Your task to perform on an android device: Open the calendar and show me this week's events? Image 0: 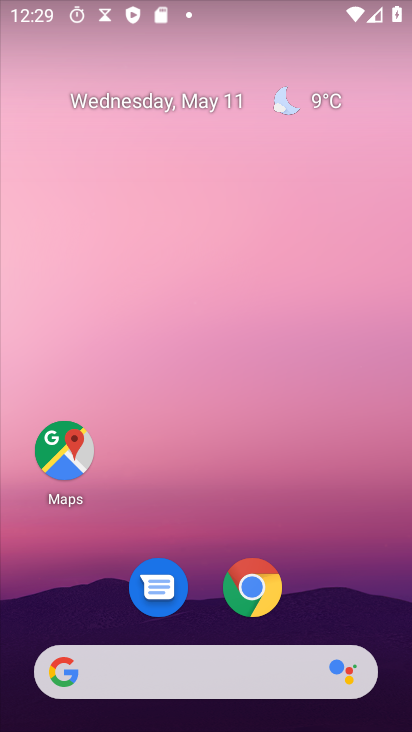
Step 0: drag from (219, 391) to (150, 153)
Your task to perform on an android device: Open the calendar and show me this week's events? Image 1: 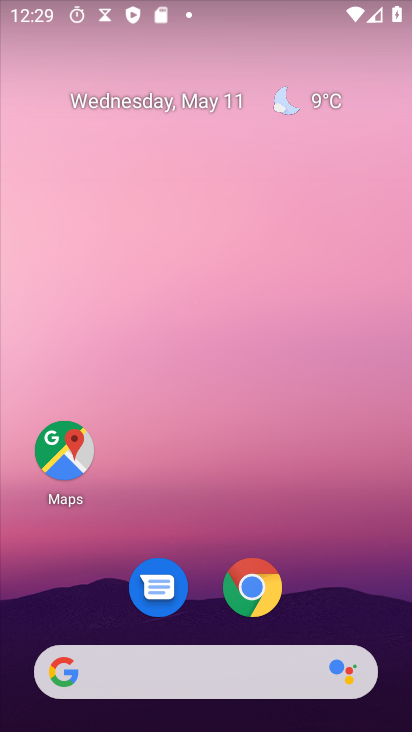
Step 1: drag from (326, 618) to (141, 333)
Your task to perform on an android device: Open the calendar and show me this week's events? Image 2: 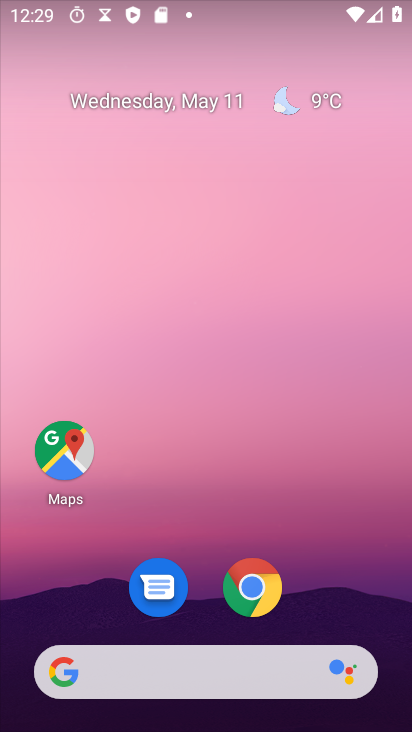
Step 2: drag from (340, 558) to (109, 3)
Your task to perform on an android device: Open the calendar and show me this week's events? Image 3: 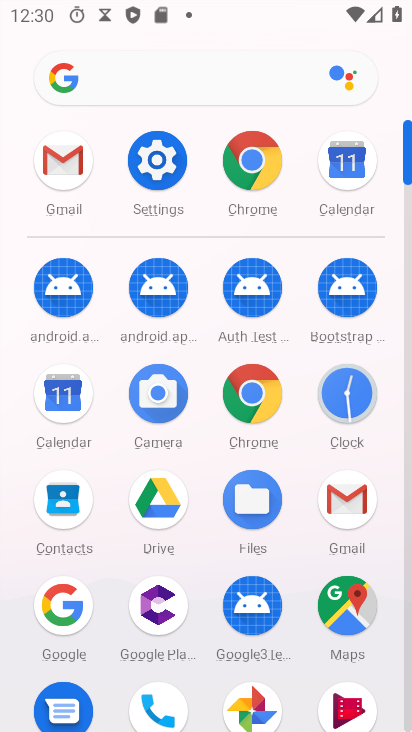
Step 3: click (64, 398)
Your task to perform on an android device: Open the calendar and show me this week's events? Image 4: 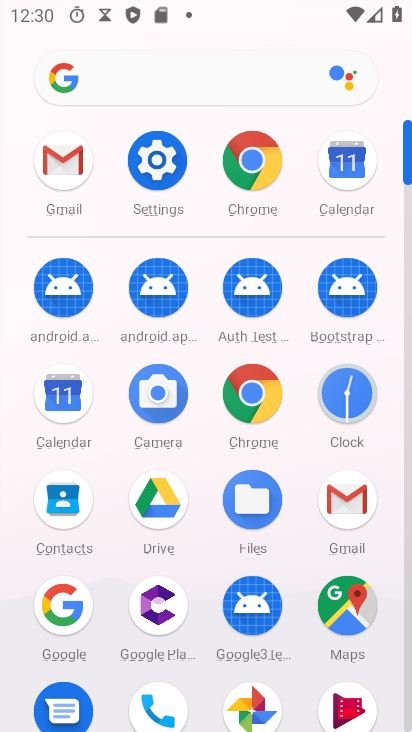
Step 4: click (66, 396)
Your task to perform on an android device: Open the calendar and show me this week's events? Image 5: 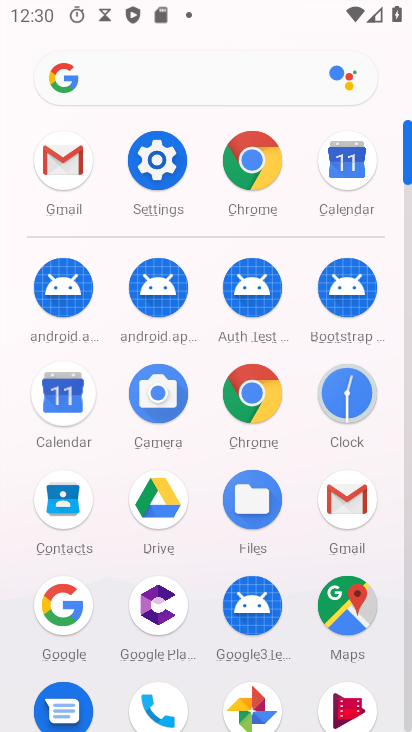
Step 5: click (65, 395)
Your task to perform on an android device: Open the calendar and show me this week's events? Image 6: 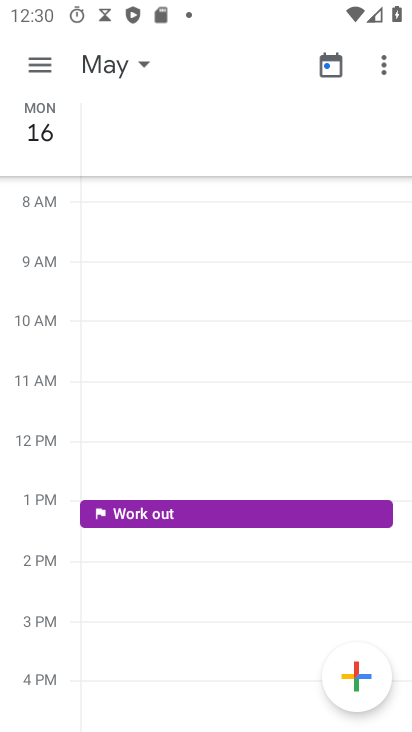
Step 6: click (62, 394)
Your task to perform on an android device: Open the calendar and show me this week's events? Image 7: 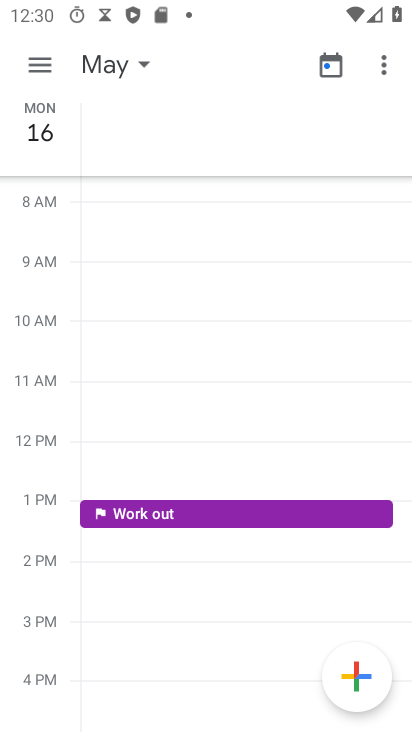
Step 7: click (143, 65)
Your task to perform on an android device: Open the calendar and show me this week's events? Image 8: 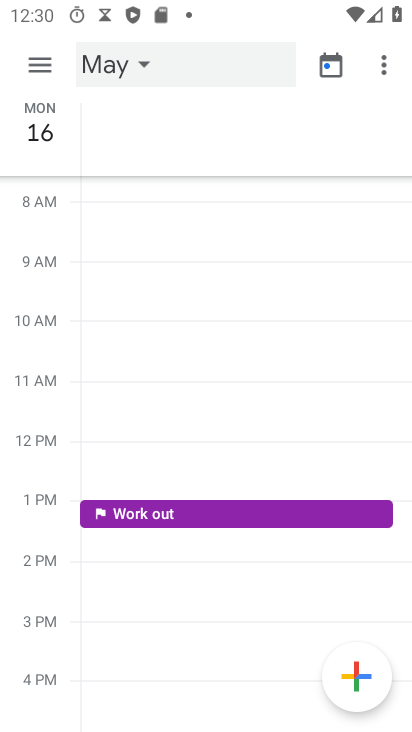
Step 8: click (139, 64)
Your task to perform on an android device: Open the calendar and show me this week's events? Image 9: 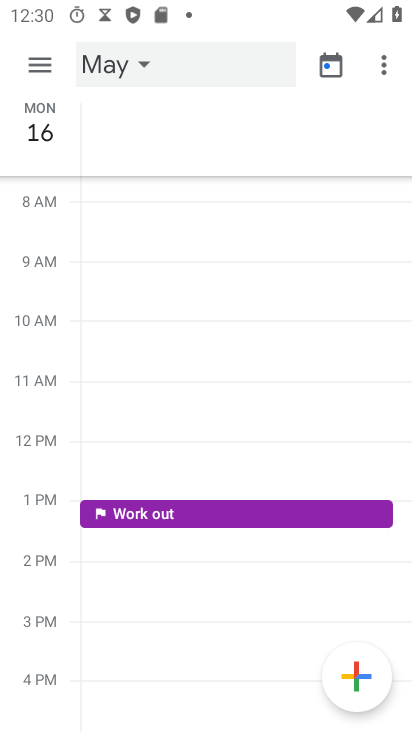
Step 9: click (139, 63)
Your task to perform on an android device: Open the calendar and show me this week's events? Image 10: 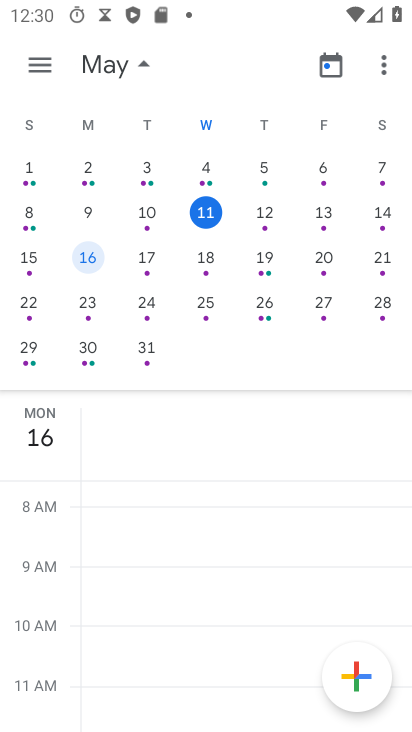
Step 10: click (327, 215)
Your task to perform on an android device: Open the calendar and show me this week's events? Image 11: 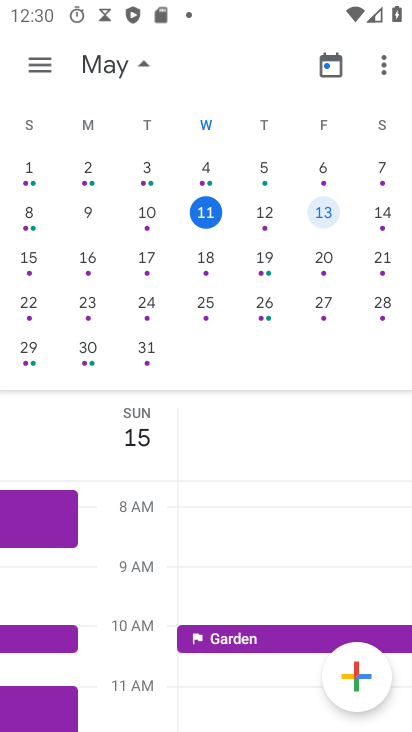
Step 11: click (327, 215)
Your task to perform on an android device: Open the calendar and show me this week's events? Image 12: 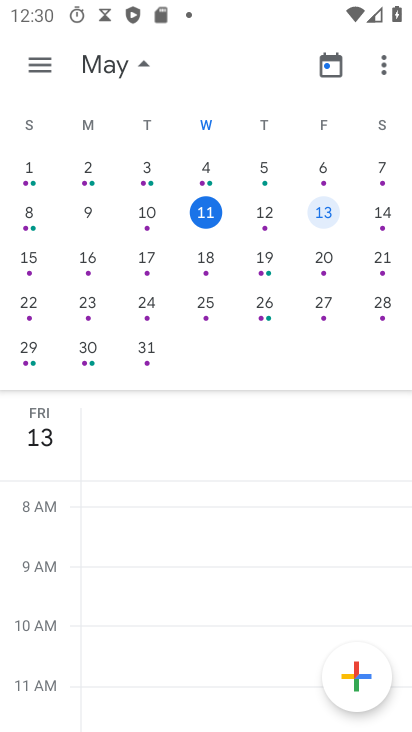
Step 12: click (325, 215)
Your task to perform on an android device: Open the calendar and show me this week's events? Image 13: 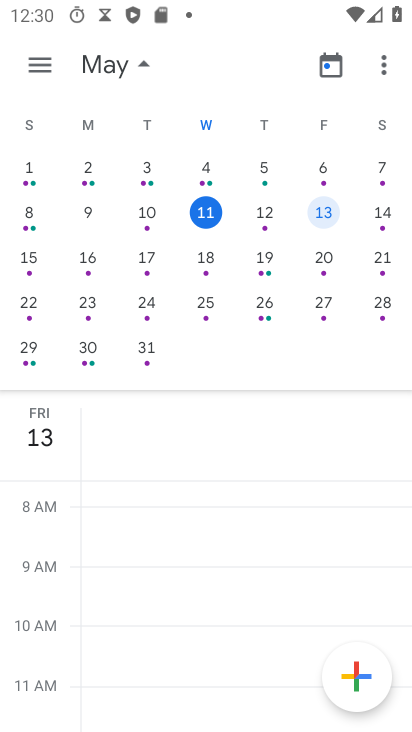
Step 13: click (325, 215)
Your task to perform on an android device: Open the calendar and show me this week's events? Image 14: 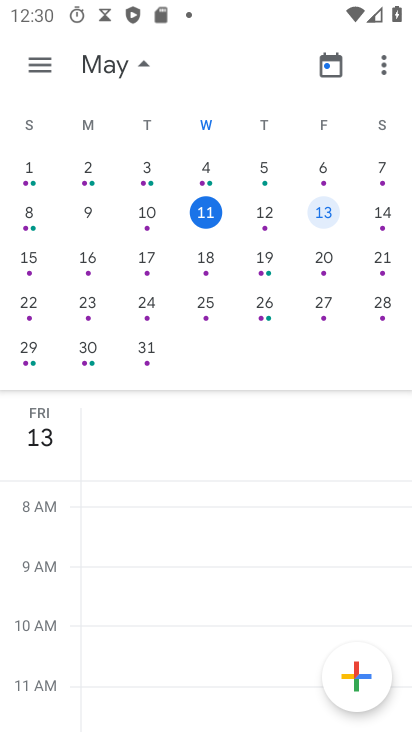
Step 14: click (322, 215)
Your task to perform on an android device: Open the calendar and show me this week's events? Image 15: 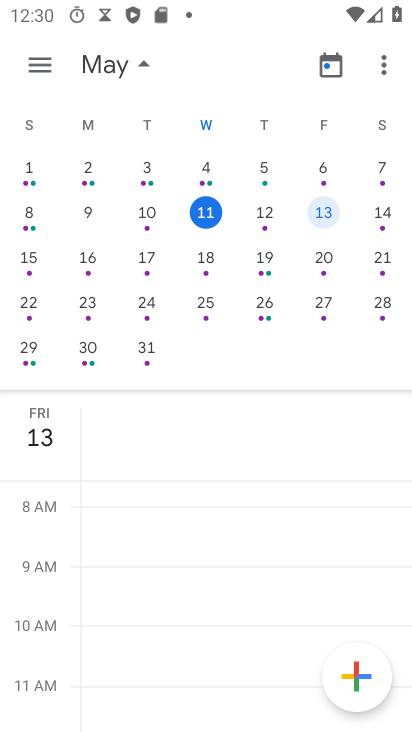
Step 15: drag from (151, 560) to (95, 217)
Your task to perform on an android device: Open the calendar and show me this week's events? Image 16: 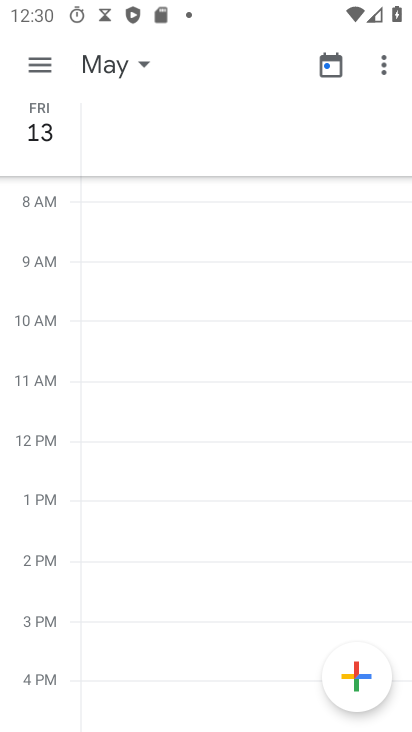
Step 16: drag from (130, 416) to (39, 199)
Your task to perform on an android device: Open the calendar and show me this week's events? Image 17: 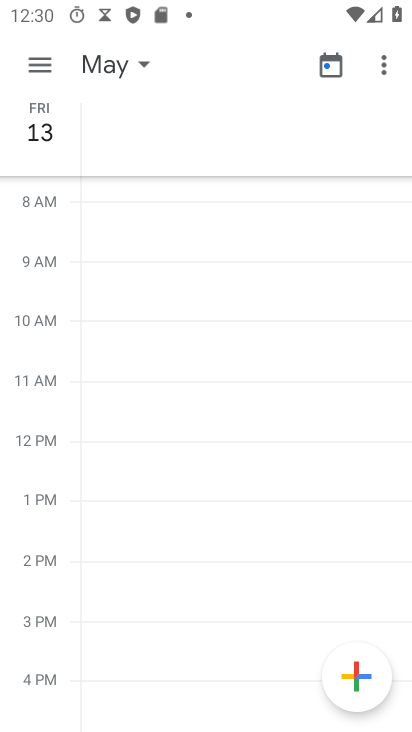
Step 17: click (42, 72)
Your task to perform on an android device: Open the calendar and show me this week's events? Image 18: 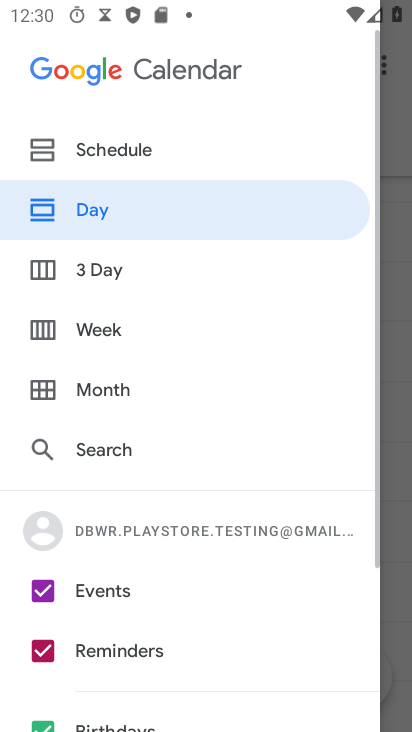
Step 18: click (99, 151)
Your task to perform on an android device: Open the calendar and show me this week's events? Image 19: 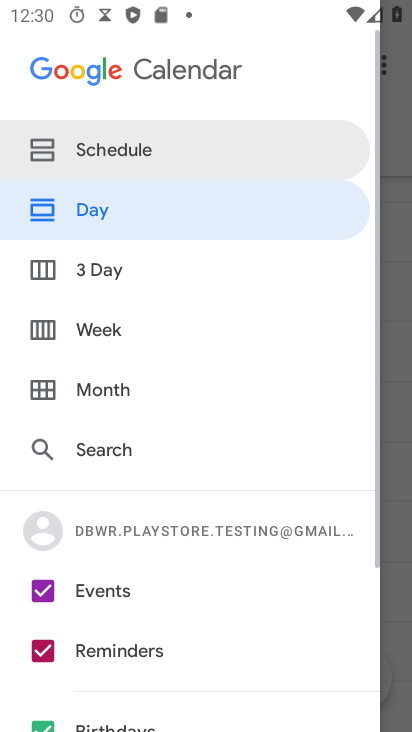
Step 19: click (100, 152)
Your task to perform on an android device: Open the calendar and show me this week's events? Image 20: 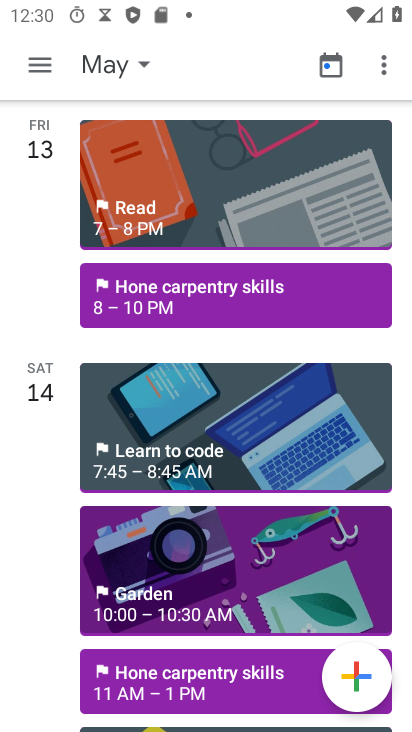
Step 20: drag from (180, 500) to (140, 124)
Your task to perform on an android device: Open the calendar and show me this week's events? Image 21: 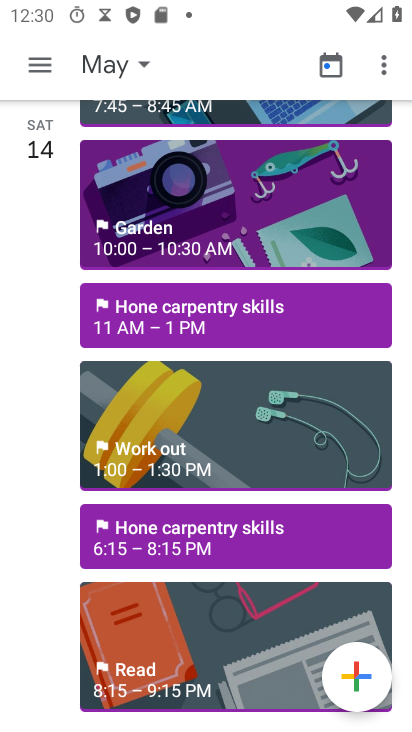
Step 21: drag from (327, 598) to (282, 204)
Your task to perform on an android device: Open the calendar and show me this week's events? Image 22: 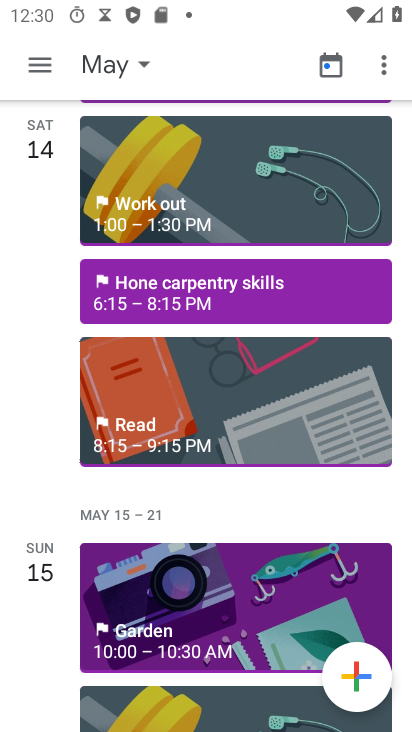
Step 22: drag from (198, 514) to (172, 104)
Your task to perform on an android device: Open the calendar and show me this week's events? Image 23: 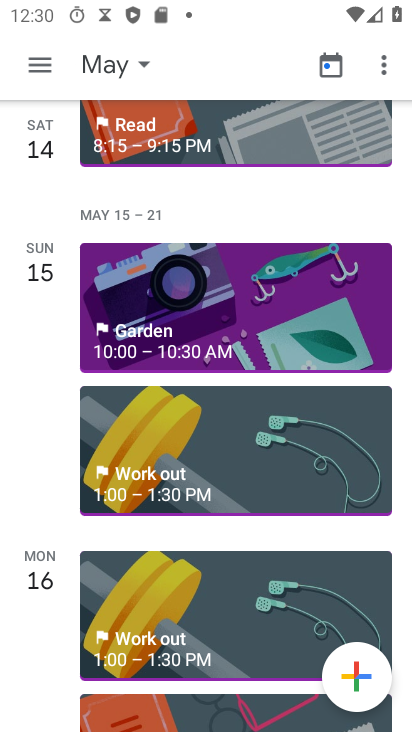
Step 23: click (136, 462)
Your task to perform on an android device: Open the calendar and show me this week's events? Image 24: 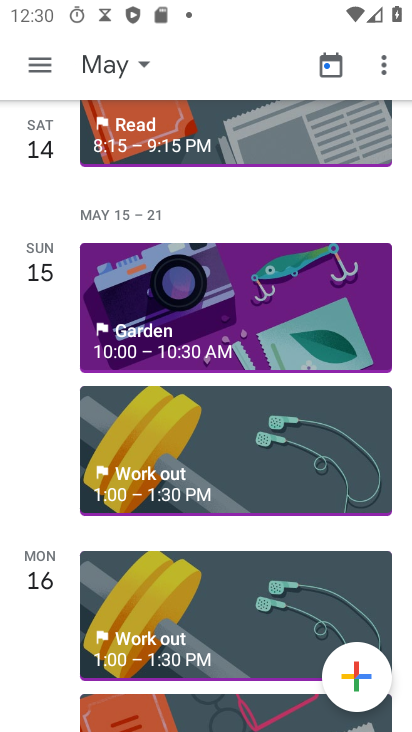
Step 24: click (144, 460)
Your task to perform on an android device: Open the calendar and show me this week's events? Image 25: 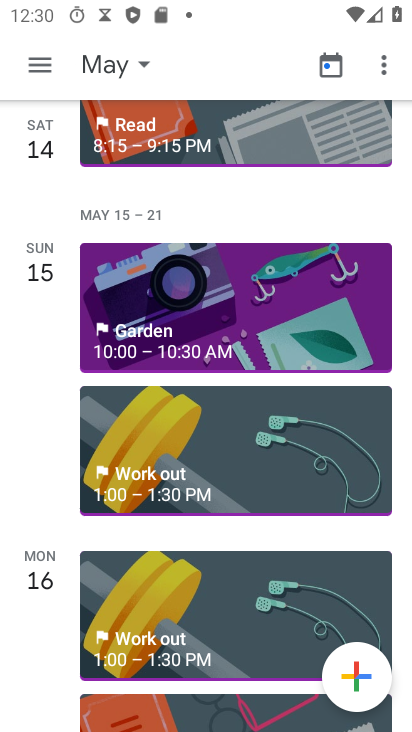
Step 25: click (144, 460)
Your task to perform on an android device: Open the calendar and show me this week's events? Image 26: 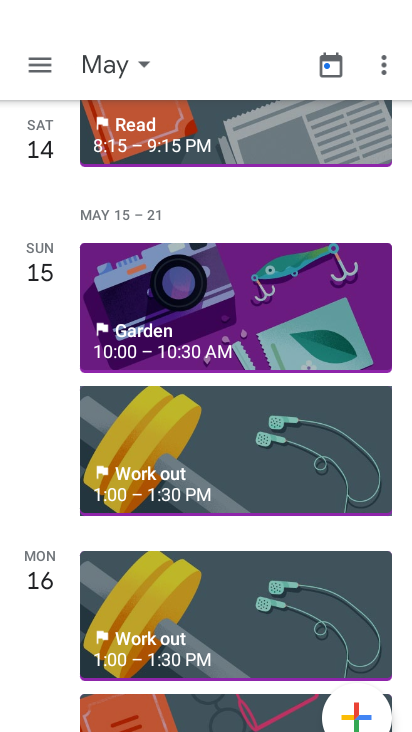
Step 26: click (147, 456)
Your task to perform on an android device: Open the calendar and show me this week's events? Image 27: 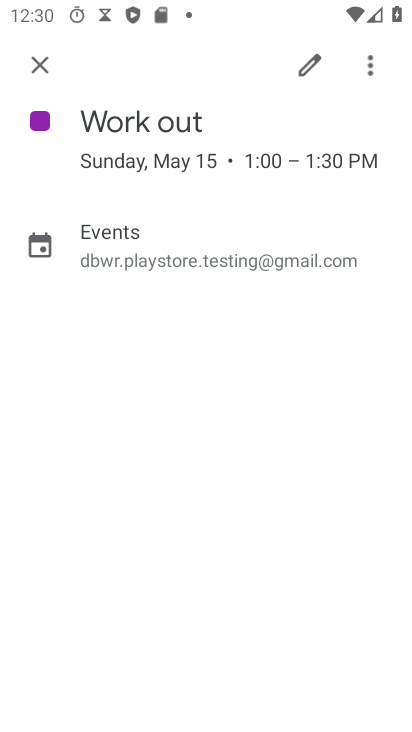
Step 27: click (40, 73)
Your task to perform on an android device: Open the calendar and show me this week's events? Image 28: 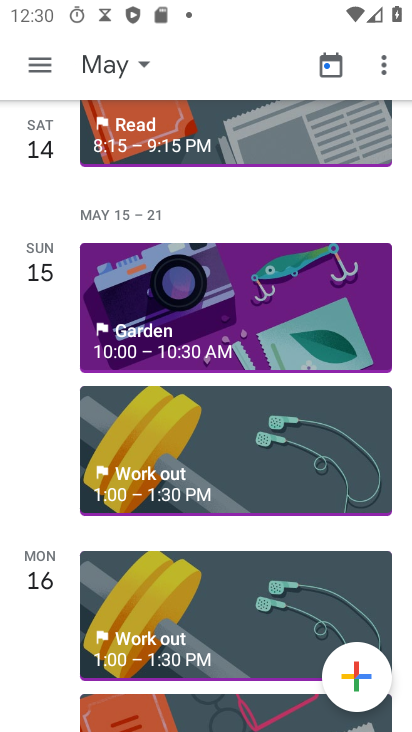
Step 28: task complete